Your task to perform on an android device: Go to settings Image 0: 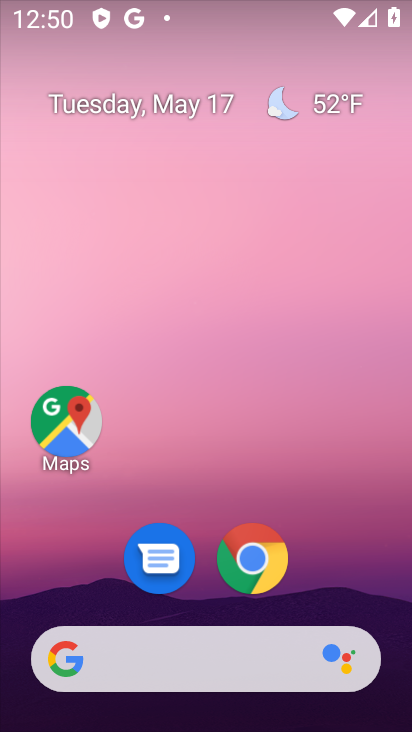
Step 0: drag from (366, 578) to (377, 252)
Your task to perform on an android device: Go to settings Image 1: 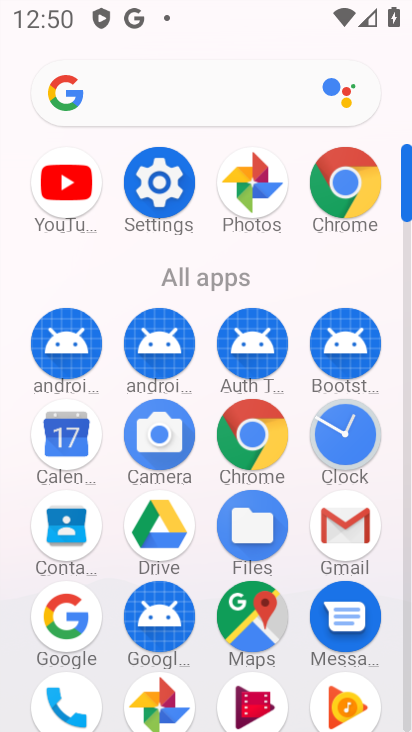
Step 1: click (142, 192)
Your task to perform on an android device: Go to settings Image 2: 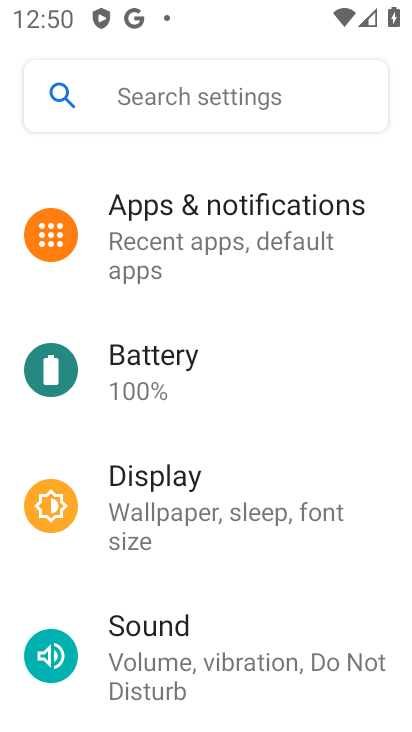
Step 2: drag from (367, 576) to (410, 461)
Your task to perform on an android device: Go to settings Image 3: 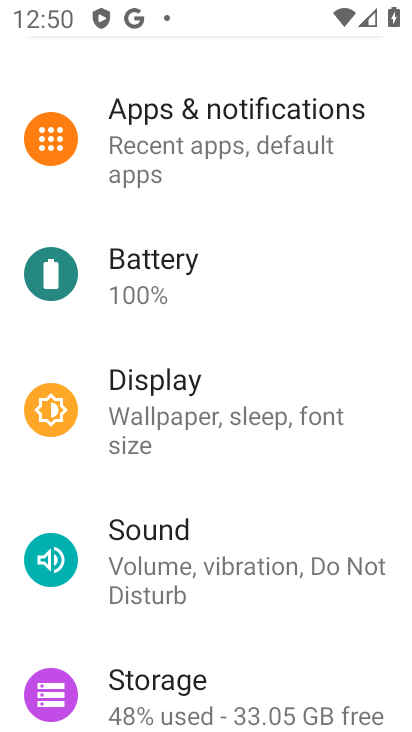
Step 3: drag from (330, 619) to (332, 408)
Your task to perform on an android device: Go to settings Image 4: 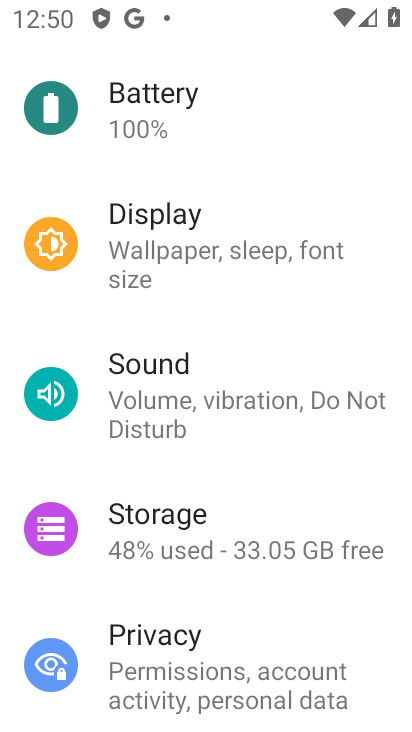
Step 4: drag from (348, 534) to (372, 493)
Your task to perform on an android device: Go to settings Image 5: 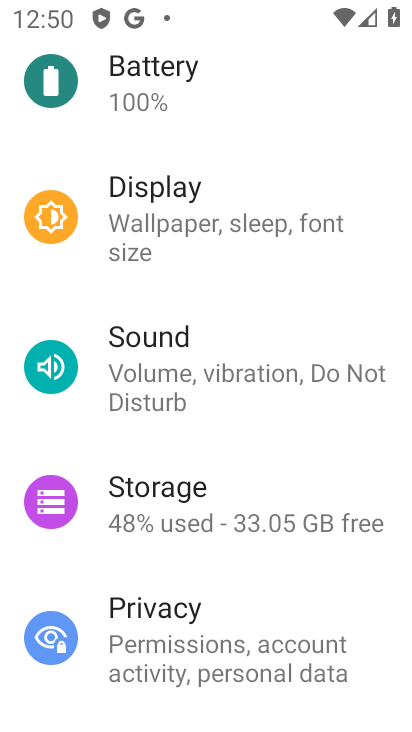
Step 5: click (372, 493)
Your task to perform on an android device: Go to settings Image 6: 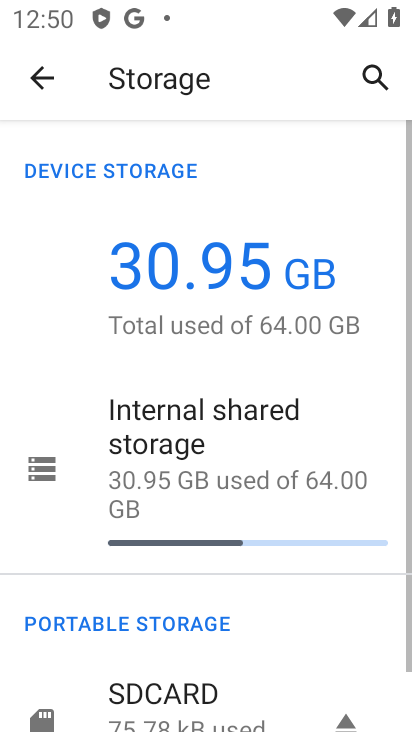
Step 6: drag from (370, 585) to (370, 439)
Your task to perform on an android device: Go to settings Image 7: 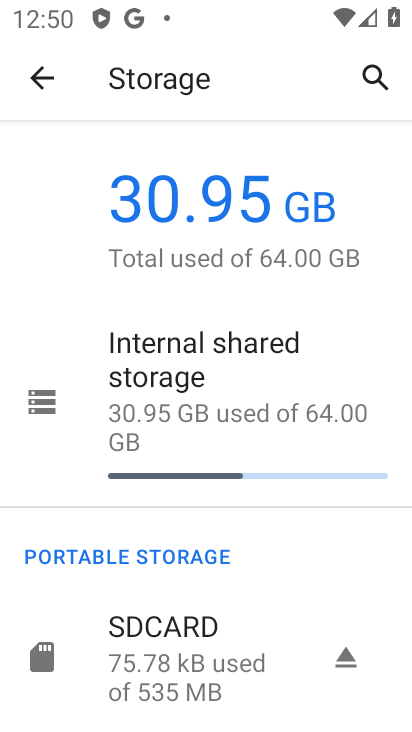
Step 7: drag from (310, 583) to (289, 352)
Your task to perform on an android device: Go to settings Image 8: 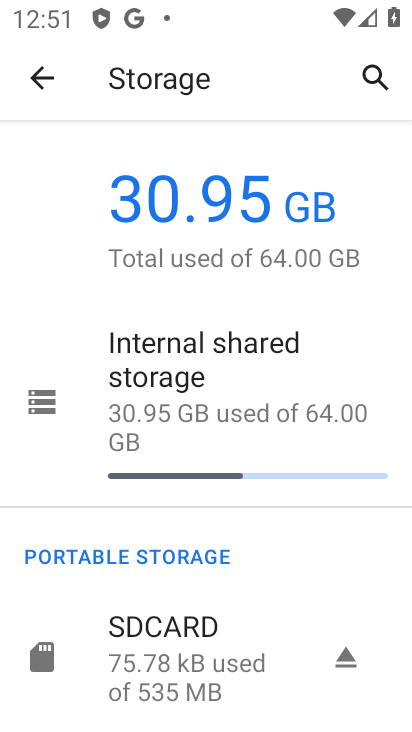
Step 8: click (27, 77)
Your task to perform on an android device: Go to settings Image 9: 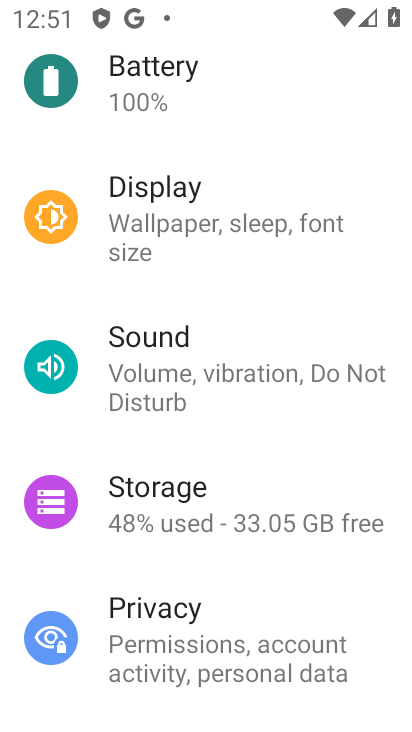
Step 9: drag from (326, 258) to (328, 427)
Your task to perform on an android device: Go to settings Image 10: 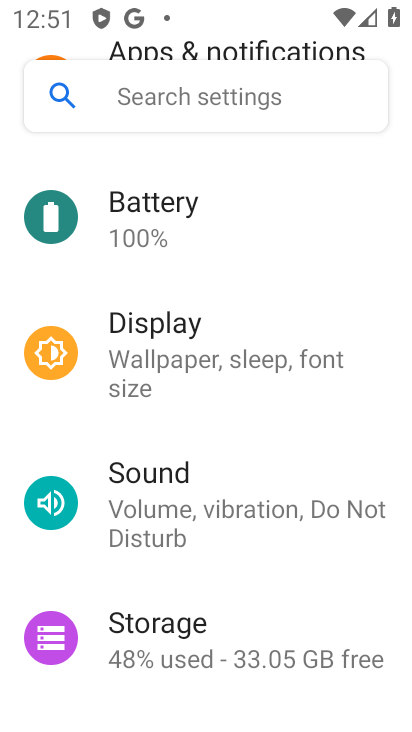
Step 10: drag from (320, 191) to (318, 356)
Your task to perform on an android device: Go to settings Image 11: 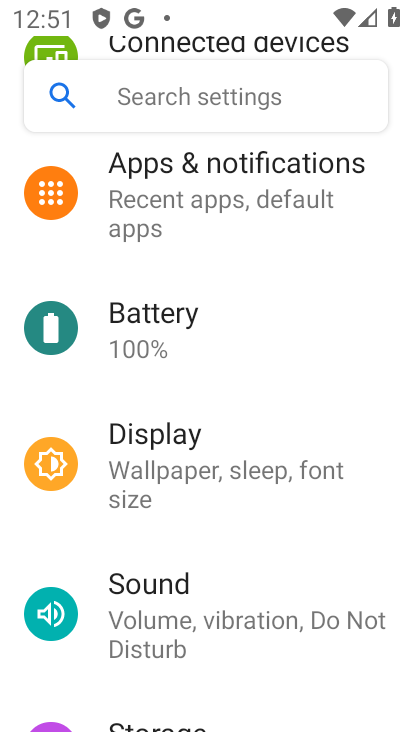
Step 11: drag from (317, 282) to (327, 352)
Your task to perform on an android device: Go to settings Image 12: 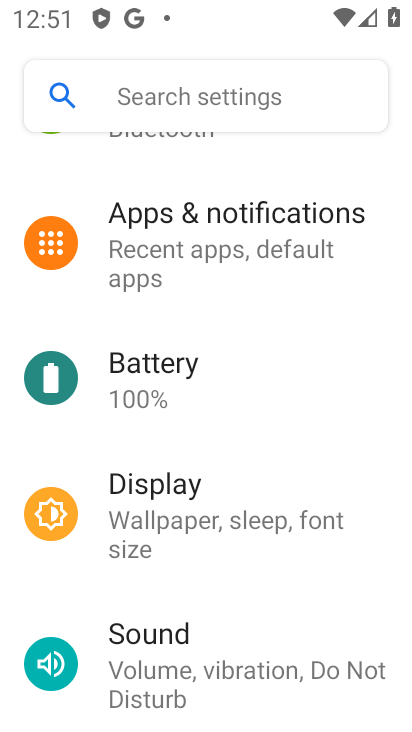
Step 12: drag from (340, 323) to (353, 355)
Your task to perform on an android device: Go to settings Image 13: 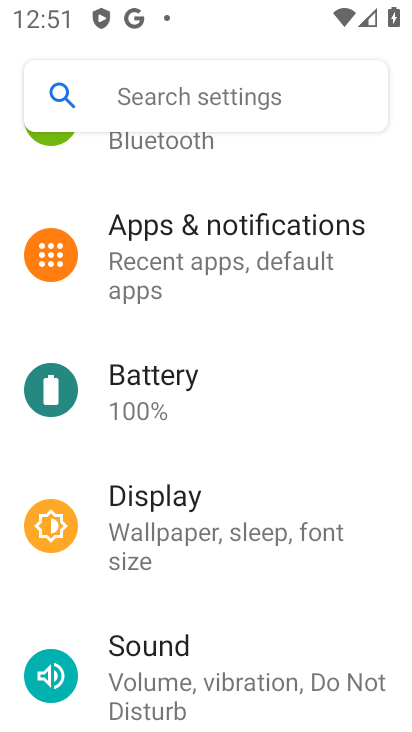
Step 13: click (353, 342)
Your task to perform on an android device: Go to settings Image 14: 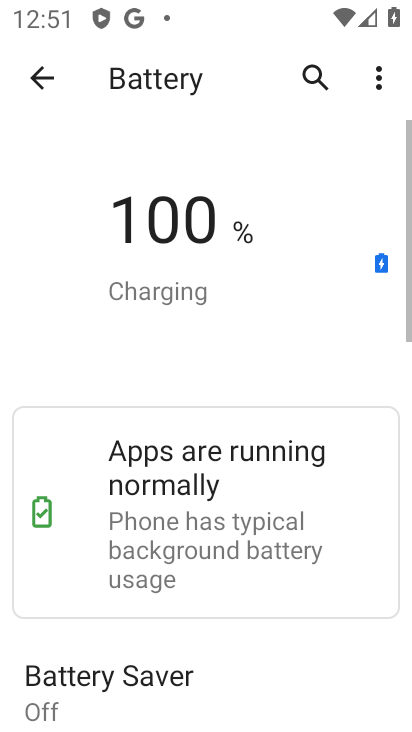
Step 14: drag from (351, 281) to (356, 385)
Your task to perform on an android device: Go to settings Image 15: 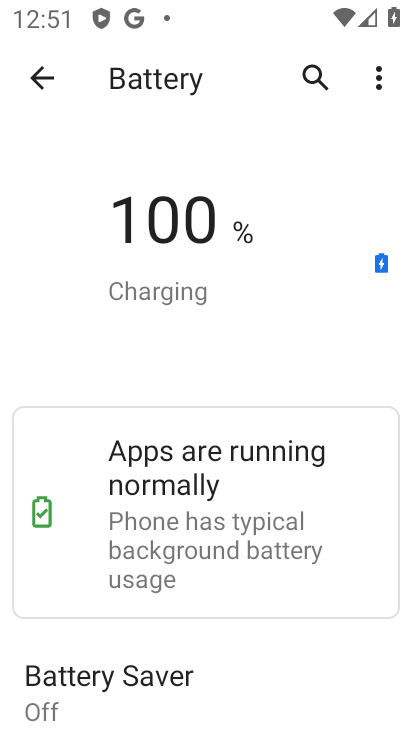
Step 15: click (362, 363)
Your task to perform on an android device: Go to settings Image 16: 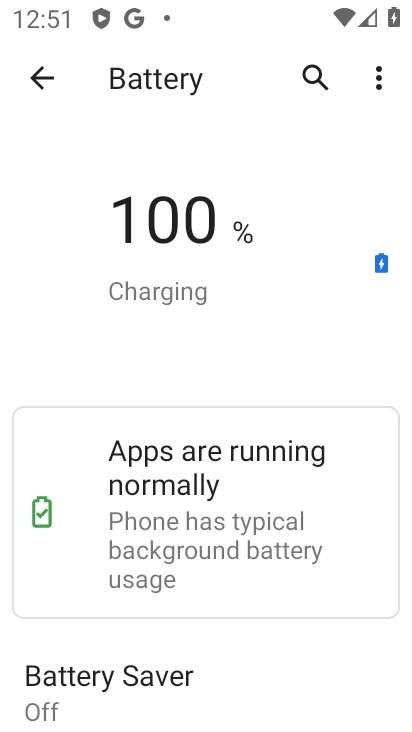
Step 16: click (362, 362)
Your task to perform on an android device: Go to settings Image 17: 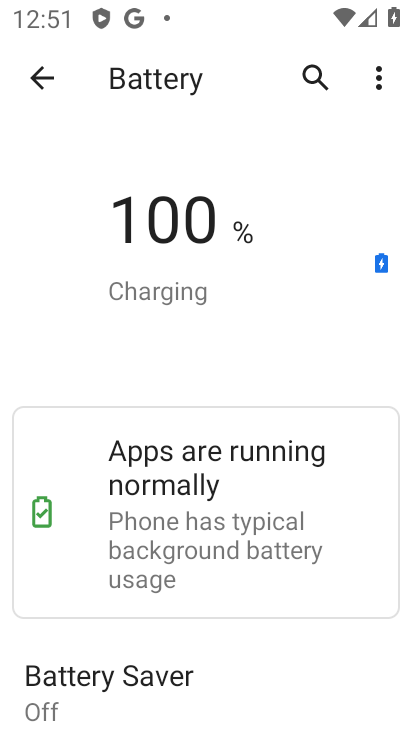
Step 17: drag from (353, 456) to (351, 380)
Your task to perform on an android device: Go to settings Image 18: 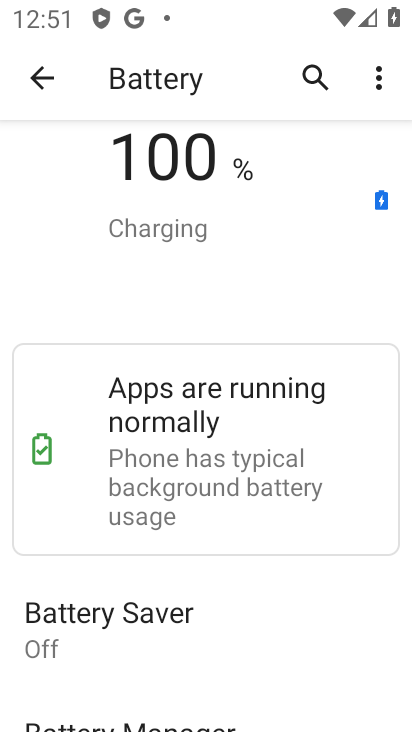
Step 18: drag from (386, 418) to (378, 330)
Your task to perform on an android device: Go to settings Image 19: 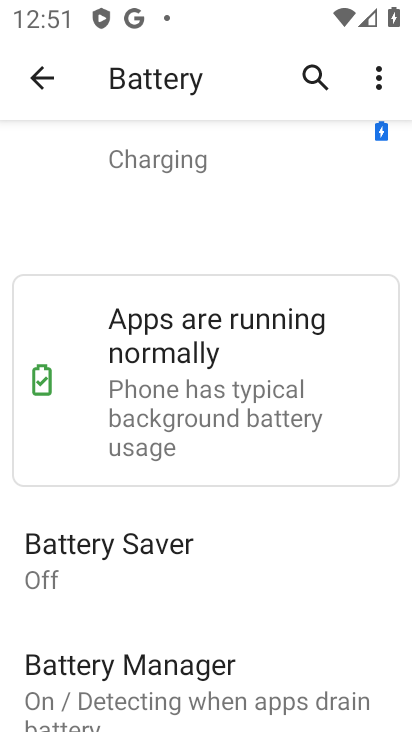
Step 19: click (378, 330)
Your task to perform on an android device: Go to settings Image 20: 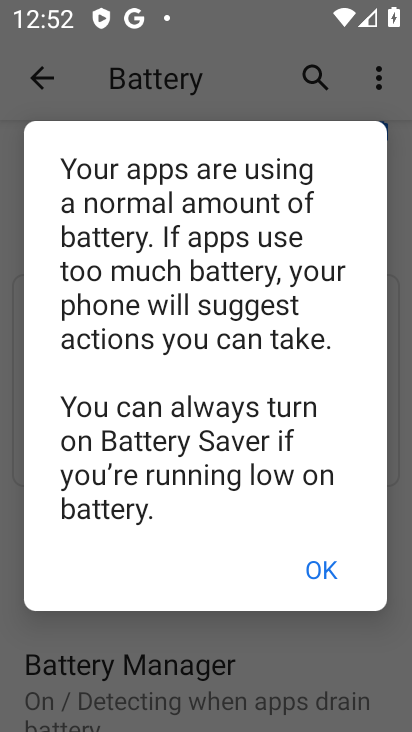
Step 20: click (327, 571)
Your task to perform on an android device: Go to settings Image 21: 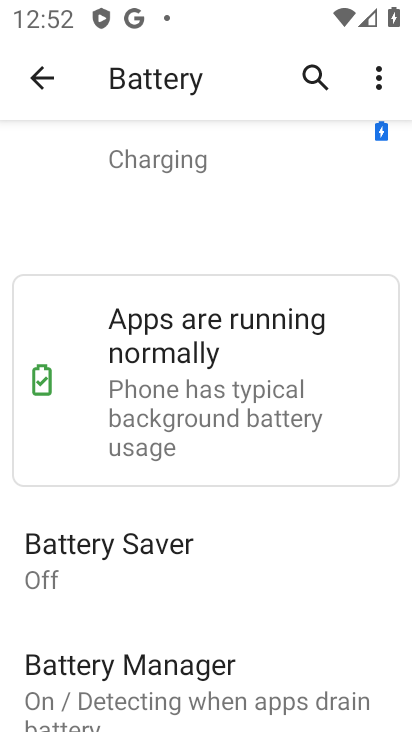
Step 21: task complete